Your task to perform on an android device: Go to wifi settings Image 0: 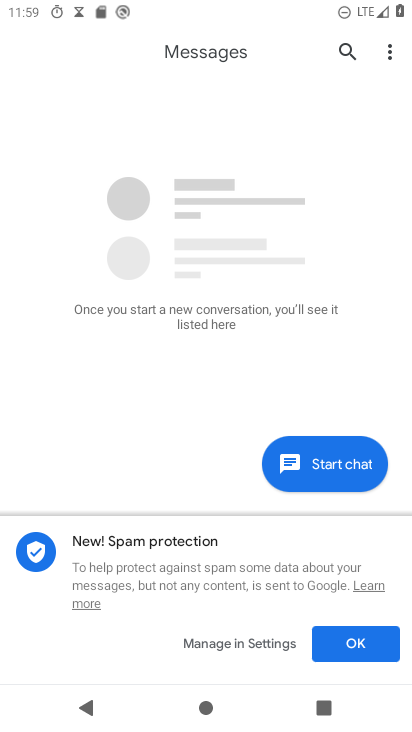
Step 0: press home button
Your task to perform on an android device: Go to wifi settings Image 1: 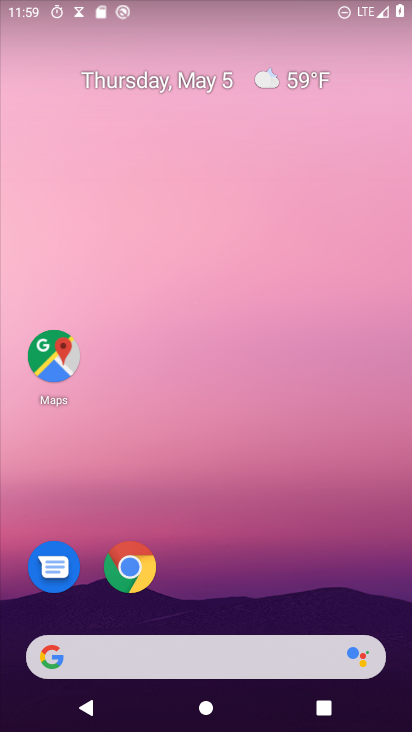
Step 1: drag from (218, 602) to (238, 0)
Your task to perform on an android device: Go to wifi settings Image 2: 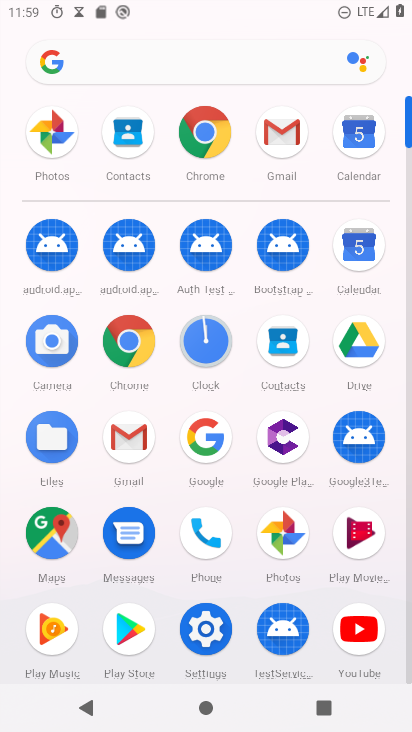
Step 2: click (213, 632)
Your task to perform on an android device: Go to wifi settings Image 3: 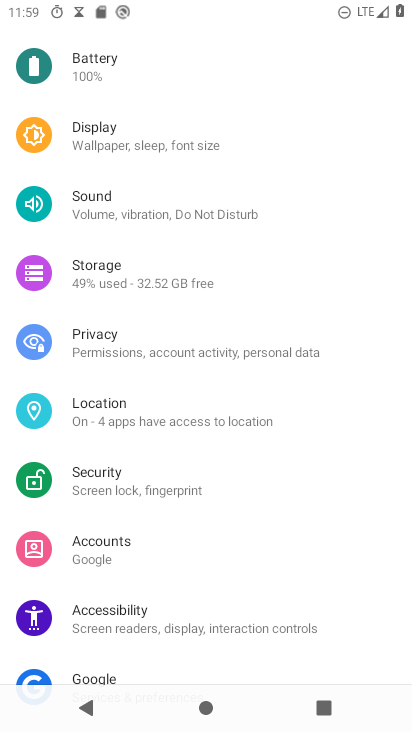
Step 3: drag from (284, 84) to (293, 435)
Your task to perform on an android device: Go to wifi settings Image 4: 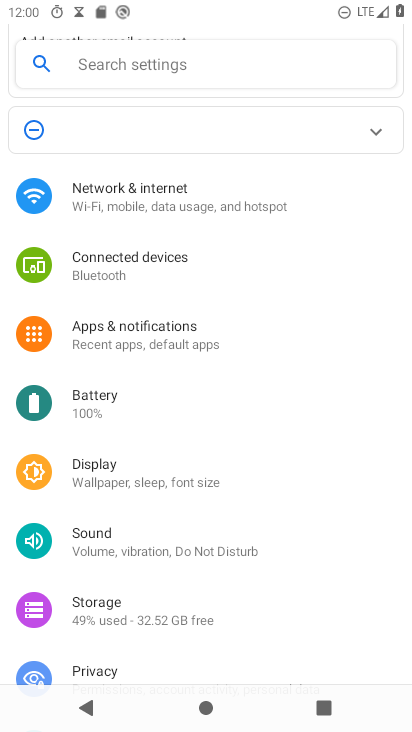
Step 4: click (131, 209)
Your task to perform on an android device: Go to wifi settings Image 5: 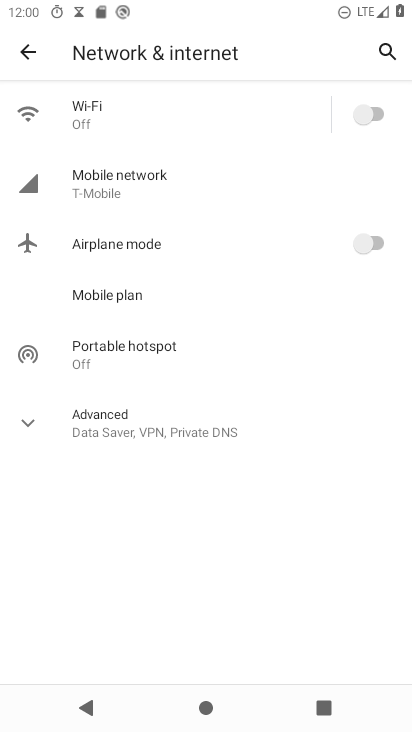
Step 5: click (76, 118)
Your task to perform on an android device: Go to wifi settings Image 6: 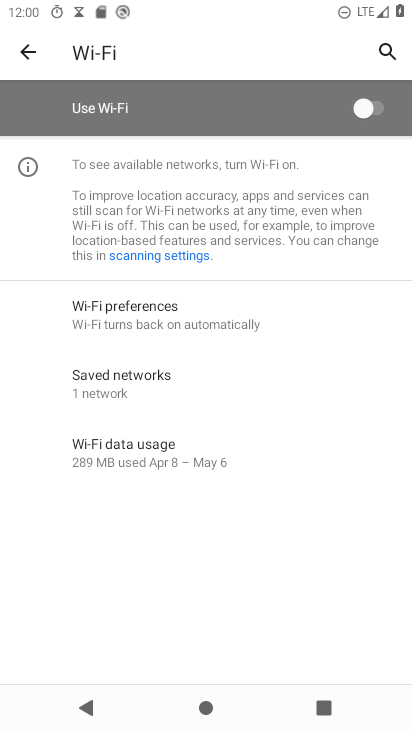
Step 6: task complete